Your task to perform on an android device: Open Google Maps Image 0: 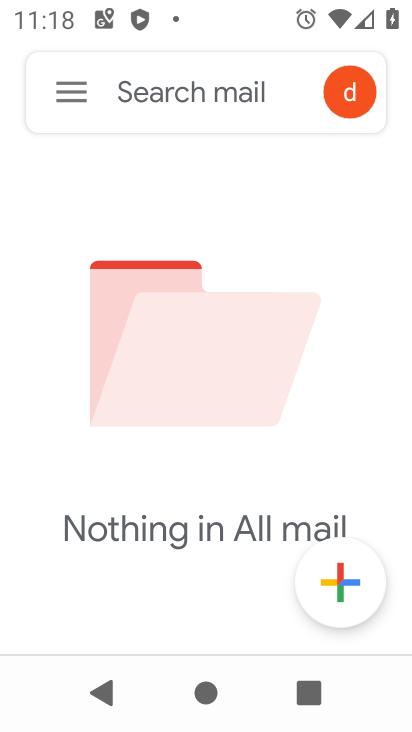
Step 0: press home button
Your task to perform on an android device: Open Google Maps Image 1: 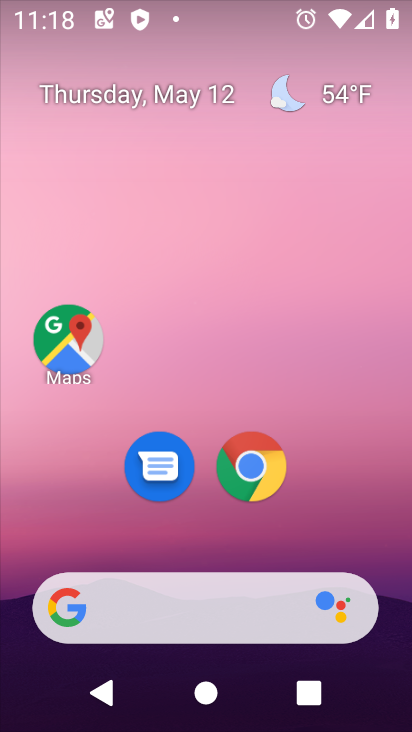
Step 1: drag from (349, 531) to (348, 98)
Your task to perform on an android device: Open Google Maps Image 2: 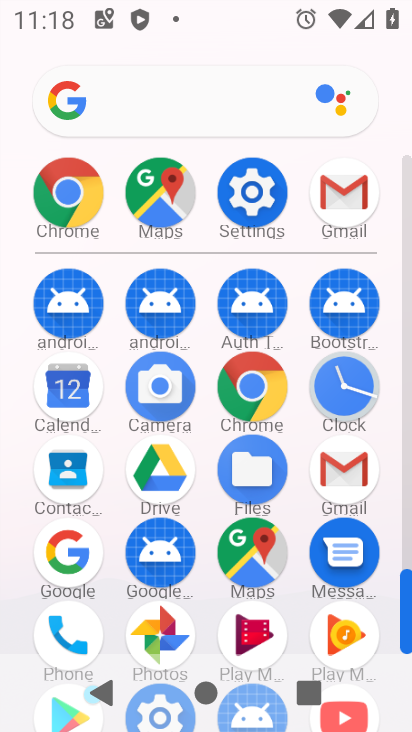
Step 2: click (254, 558)
Your task to perform on an android device: Open Google Maps Image 3: 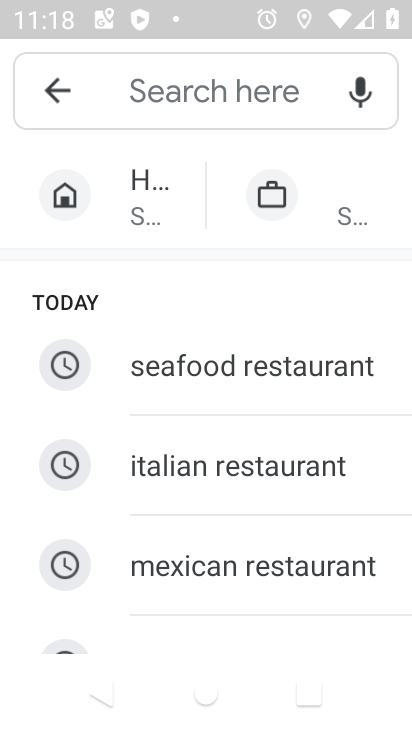
Step 3: click (49, 90)
Your task to perform on an android device: Open Google Maps Image 4: 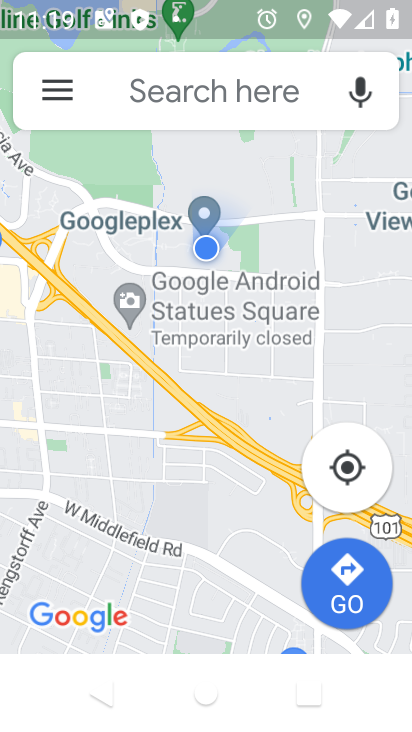
Step 4: task complete